Your task to perform on an android device: Open wifi settings Image 0: 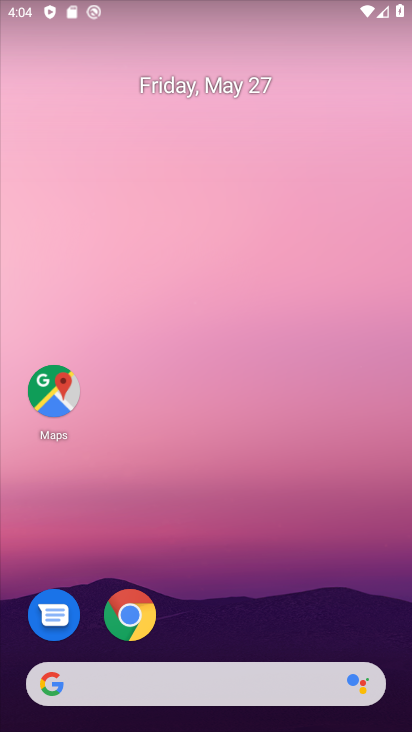
Step 0: drag from (322, 495) to (120, 7)
Your task to perform on an android device: Open wifi settings Image 1: 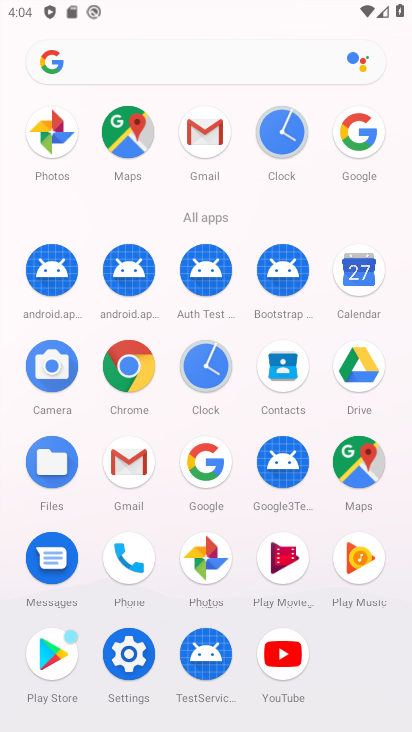
Step 1: click (129, 660)
Your task to perform on an android device: Open wifi settings Image 2: 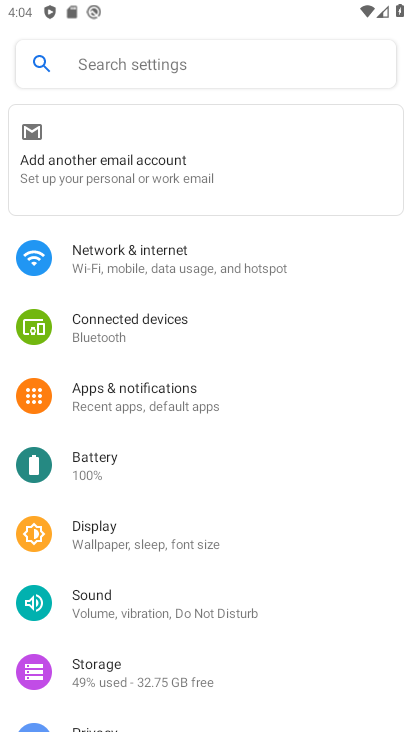
Step 2: click (178, 246)
Your task to perform on an android device: Open wifi settings Image 3: 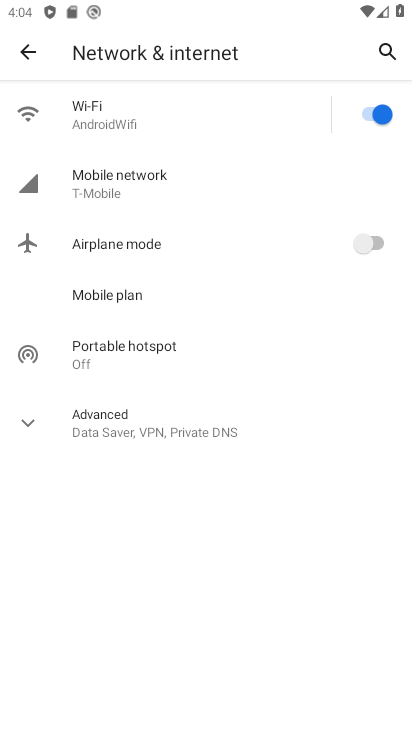
Step 3: click (182, 120)
Your task to perform on an android device: Open wifi settings Image 4: 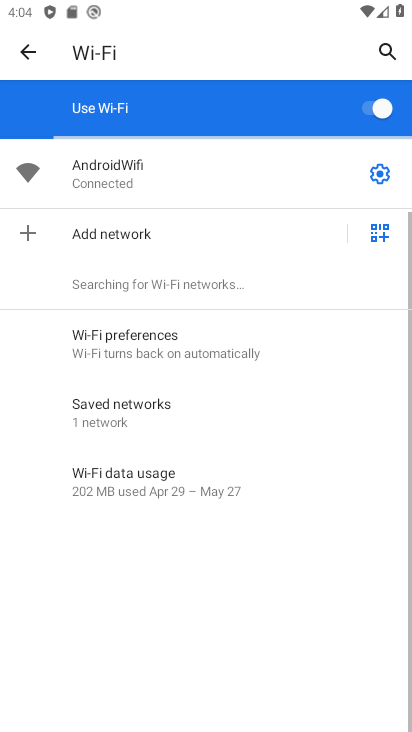
Step 4: task complete